Your task to perform on an android device: Open ESPN.com Image 0: 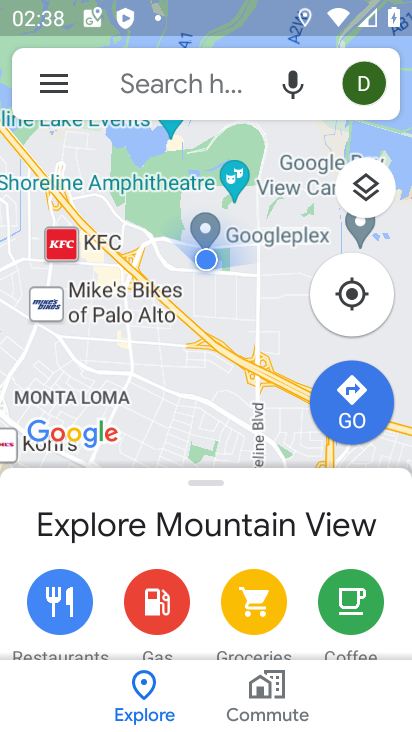
Step 0: press home button
Your task to perform on an android device: Open ESPN.com Image 1: 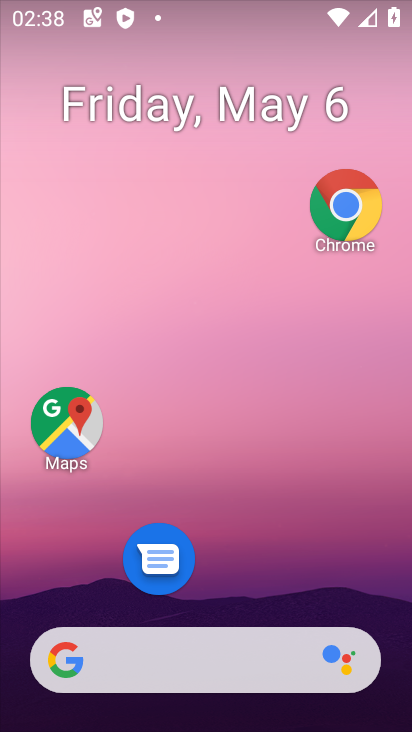
Step 1: drag from (196, 669) to (358, 6)
Your task to perform on an android device: Open ESPN.com Image 2: 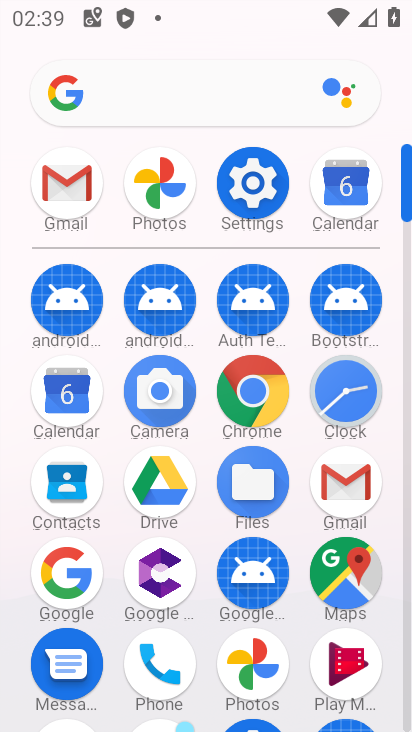
Step 2: click (260, 404)
Your task to perform on an android device: Open ESPN.com Image 3: 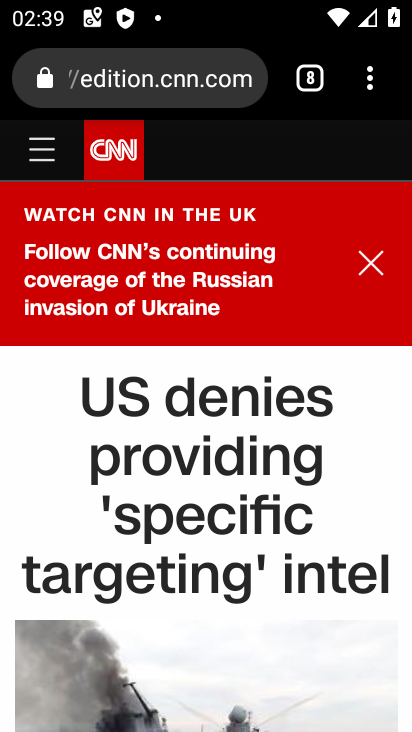
Step 3: drag from (373, 81) to (204, 144)
Your task to perform on an android device: Open ESPN.com Image 4: 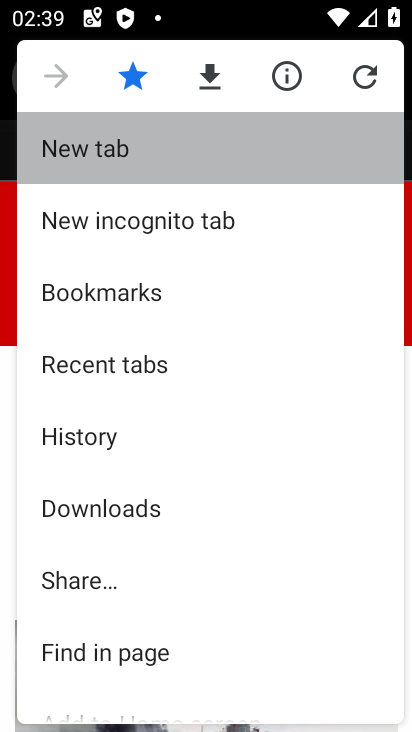
Step 4: click (204, 144)
Your task to perform on an android device: Open ESPN.com Image 5: 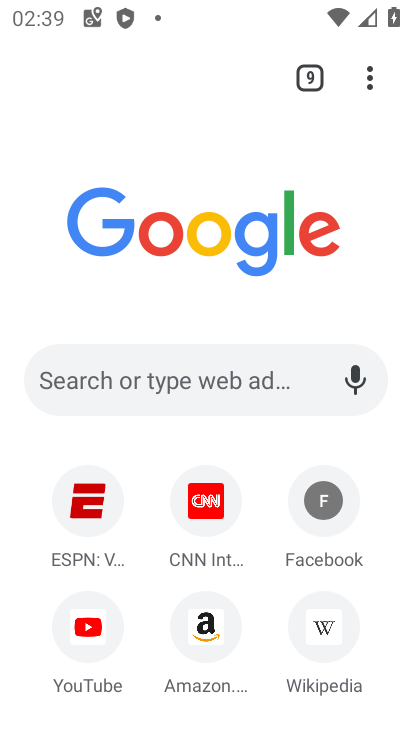
Step 5: click (96, 513)
Your task to perform on an android device: Open ESPN.com Image 6: 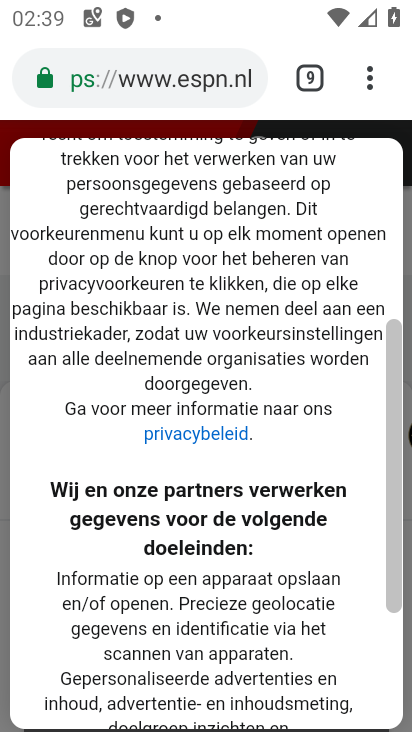
Step 6: task complete